Your task to perform on an android device: Search for Mexican restaurants on Maps Image 0: 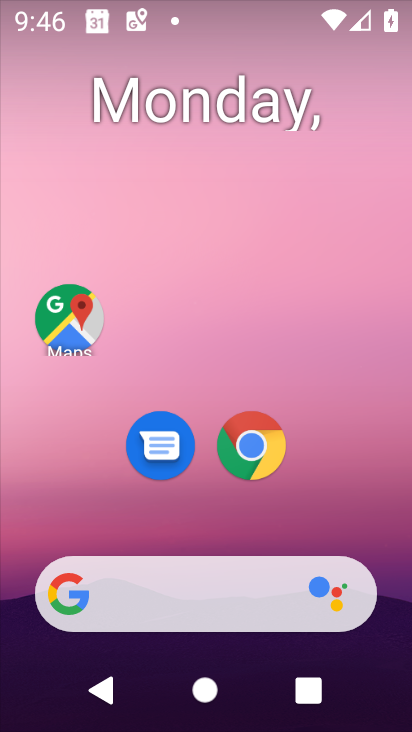
Step 0: click (97, 334)
Your task to perform on an android device: Search for Mexican restaurants on Maps Image 1: 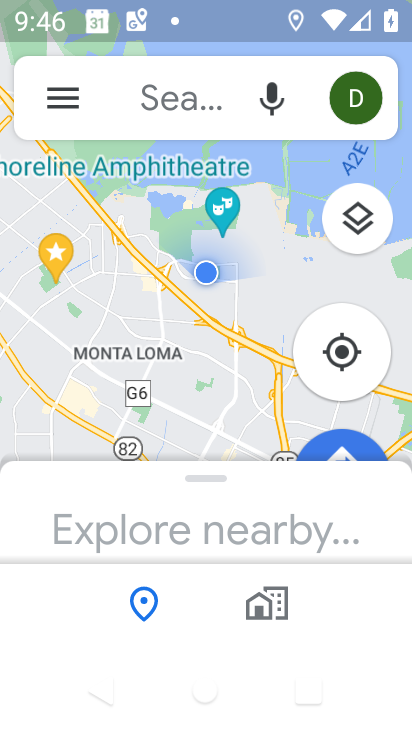
Step 1: click (215, 100)
Your task to perform on an android device: Search for Mexican restaurants on Maps Image 2: 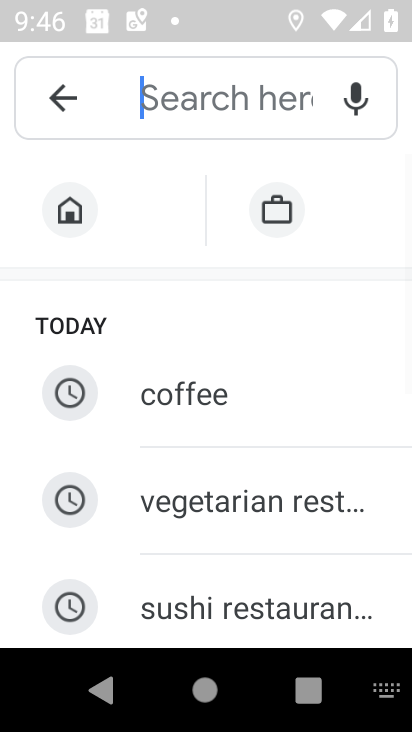
Step 2: drag from (230, 594) to (237, 38)
Your task to perform on an android device: Search for Mexican restaurants on Maps Image 3: 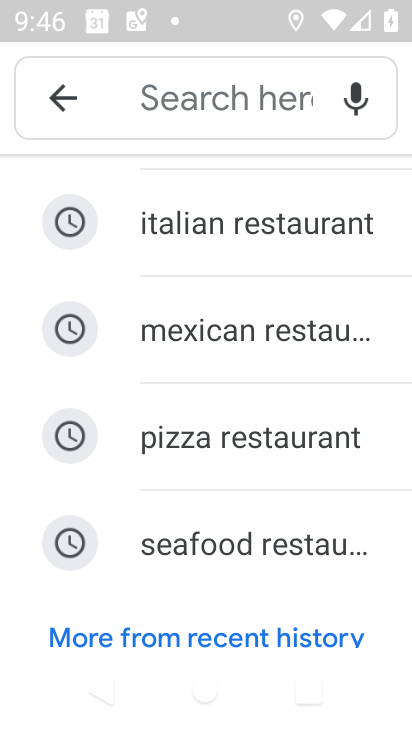
Step 3: click (245, 352)
Your task to perform on an android device: Search for Mexican restaurants on Maps Image 4: 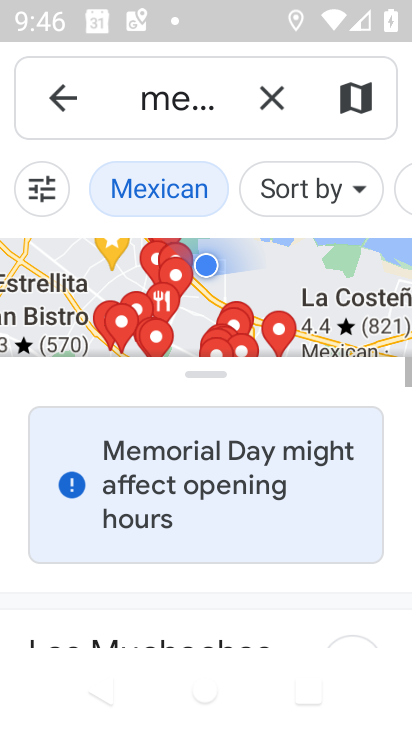
Step 4: task complete